Your task to perform on an android device: uninstall "Skype" Image 0: 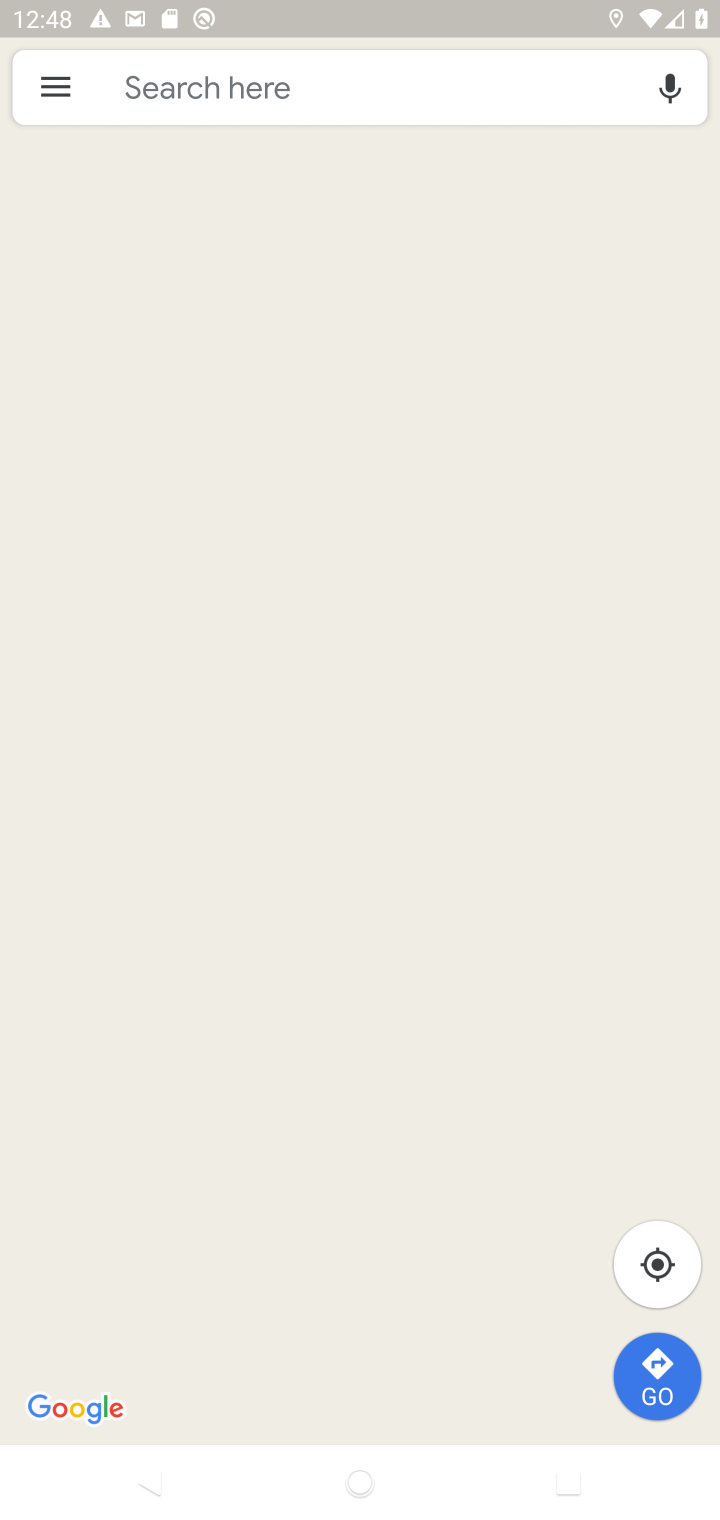
Step 0: press home button
Your task to perform on an android device: uninstall "Skype" Image 1: 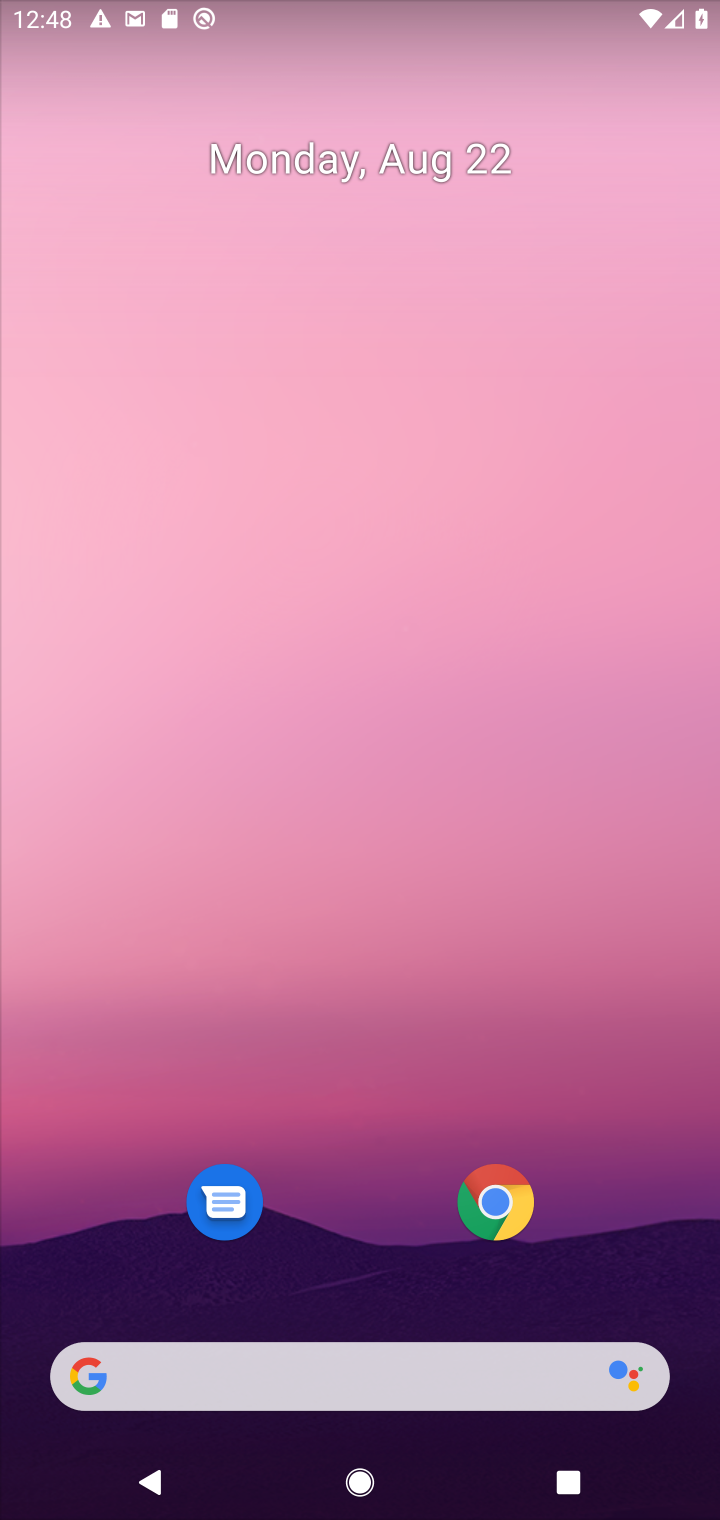
Step 1: drag from (335, 1230) to (246, 276)
Your task to perform on an android device: uninstall "Skype" Image 2: 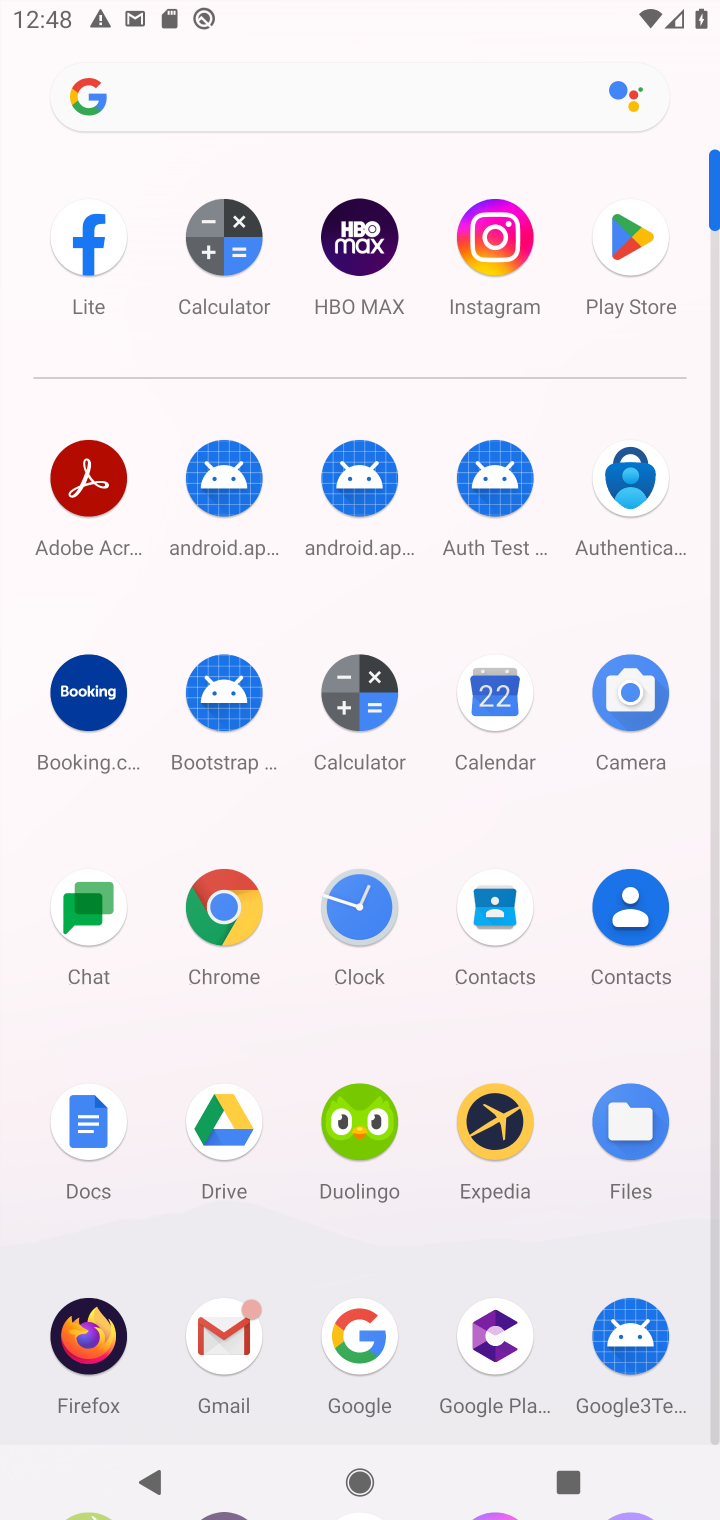
Step 2: click (631, 243)
Your task to perform on an android device: uninstall "Skype" Image 3: 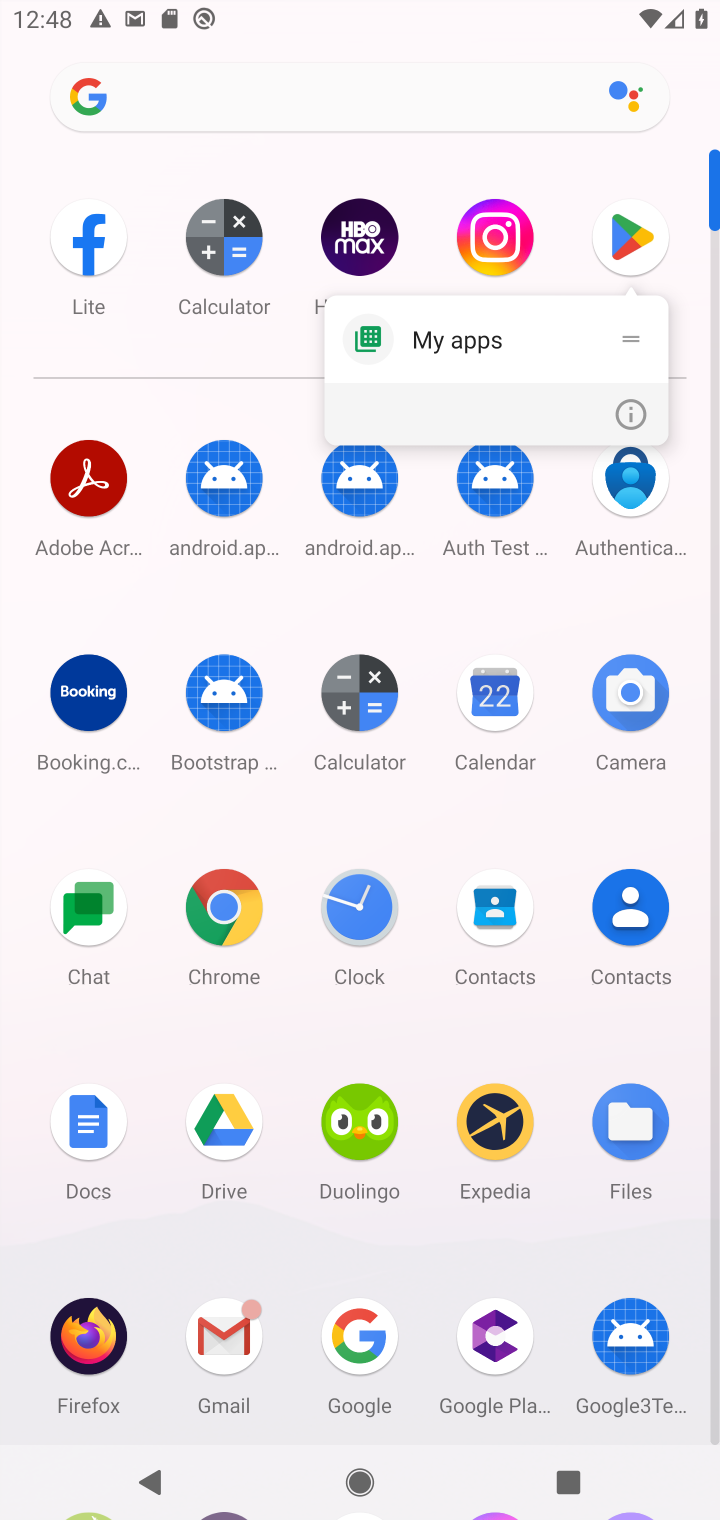
Step 3: click (629, 241)
Your task to perform on an android device: uninstall "Skype" Image 4: 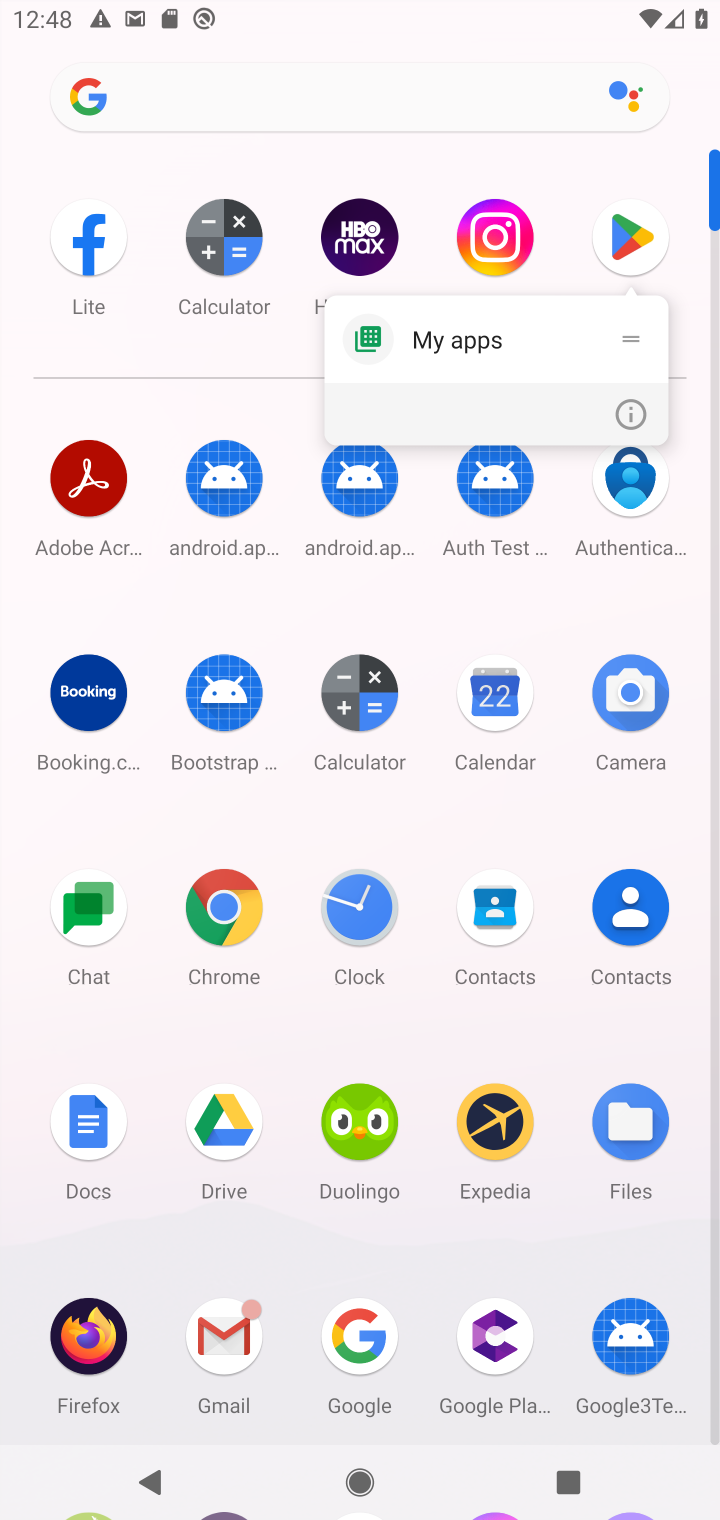
Step 4: click (629, 241)
Your task to perform on an android device: uninstall "Skype" Image 5: 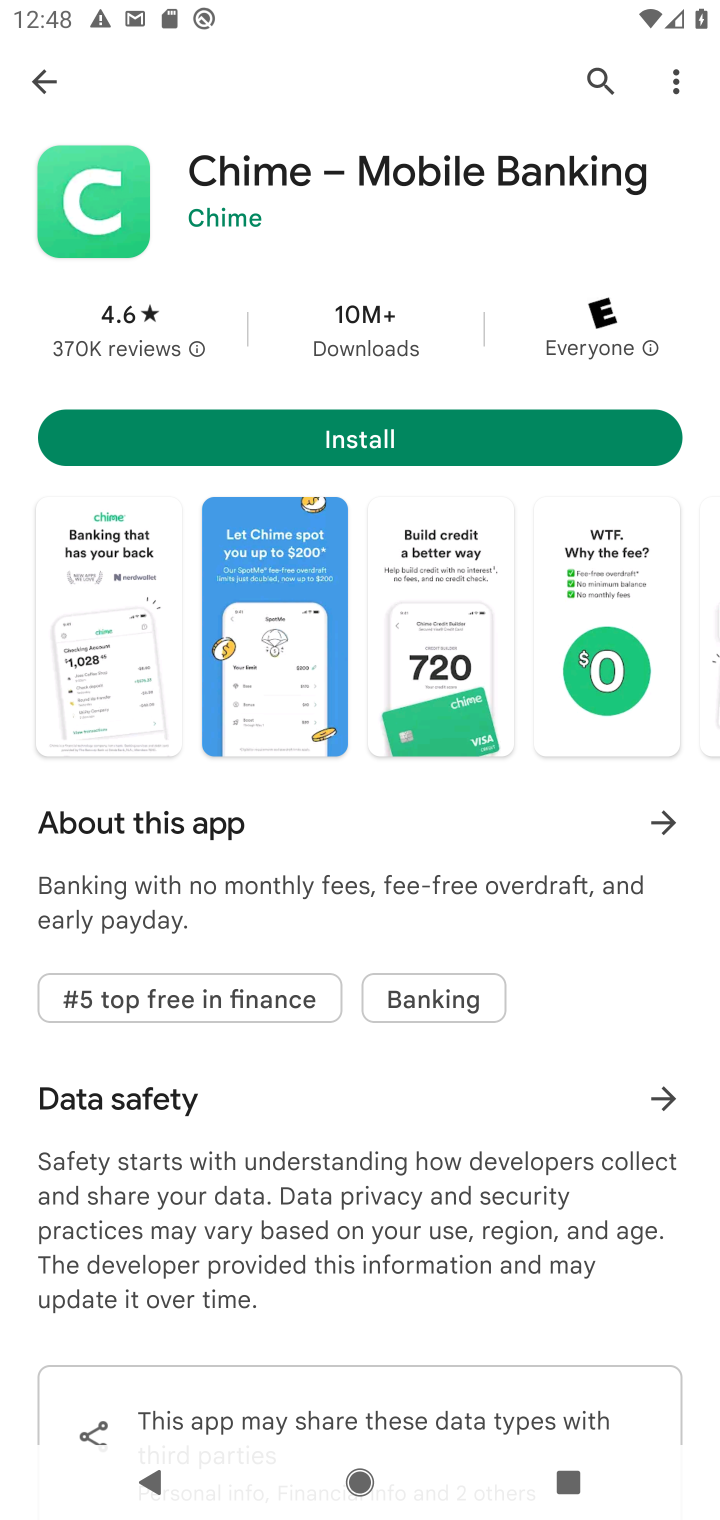
Step 5: click (599, 77)
Your task to perform on an android device: uninstall "Skype" Image 6: 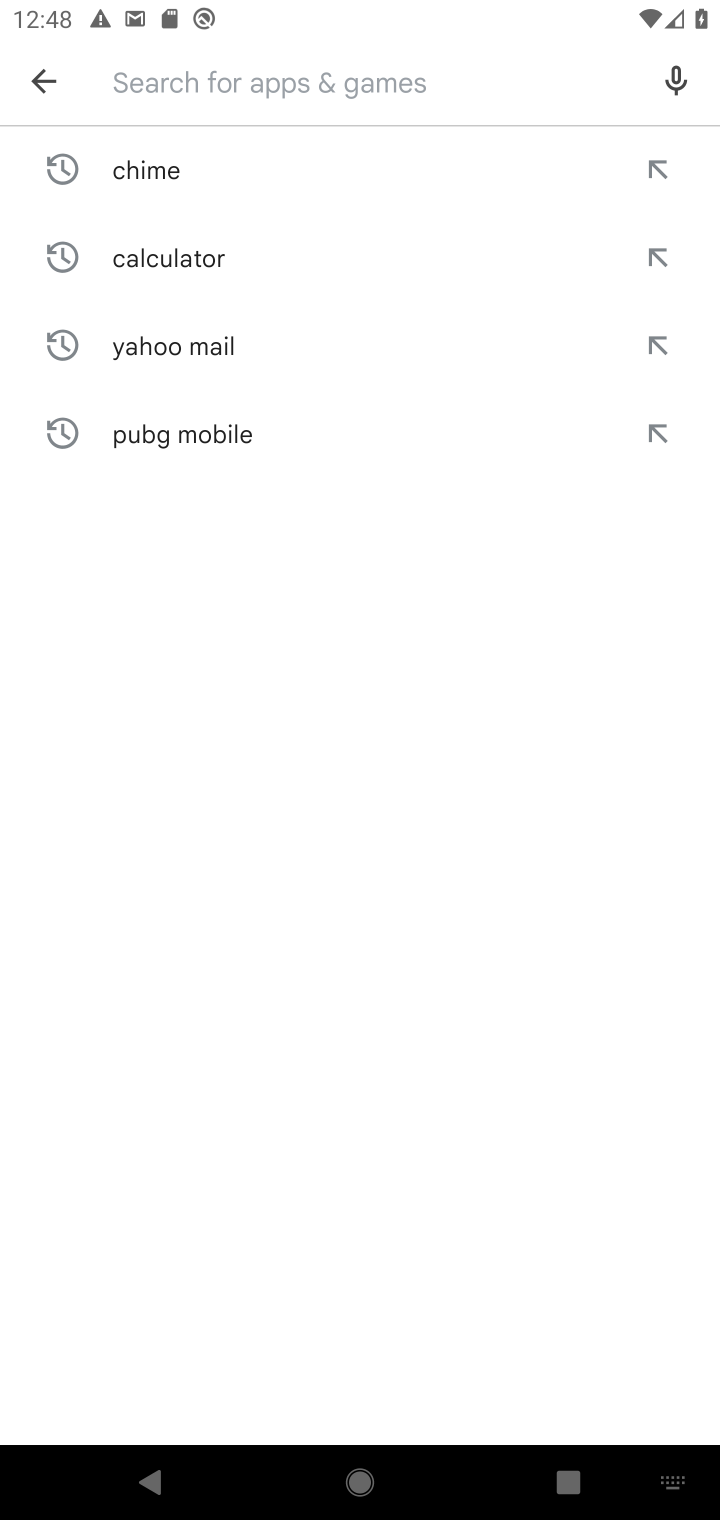
Step 6: type "Skype"
Your task to perform on an android device: uninstall "Skype" Image 7: 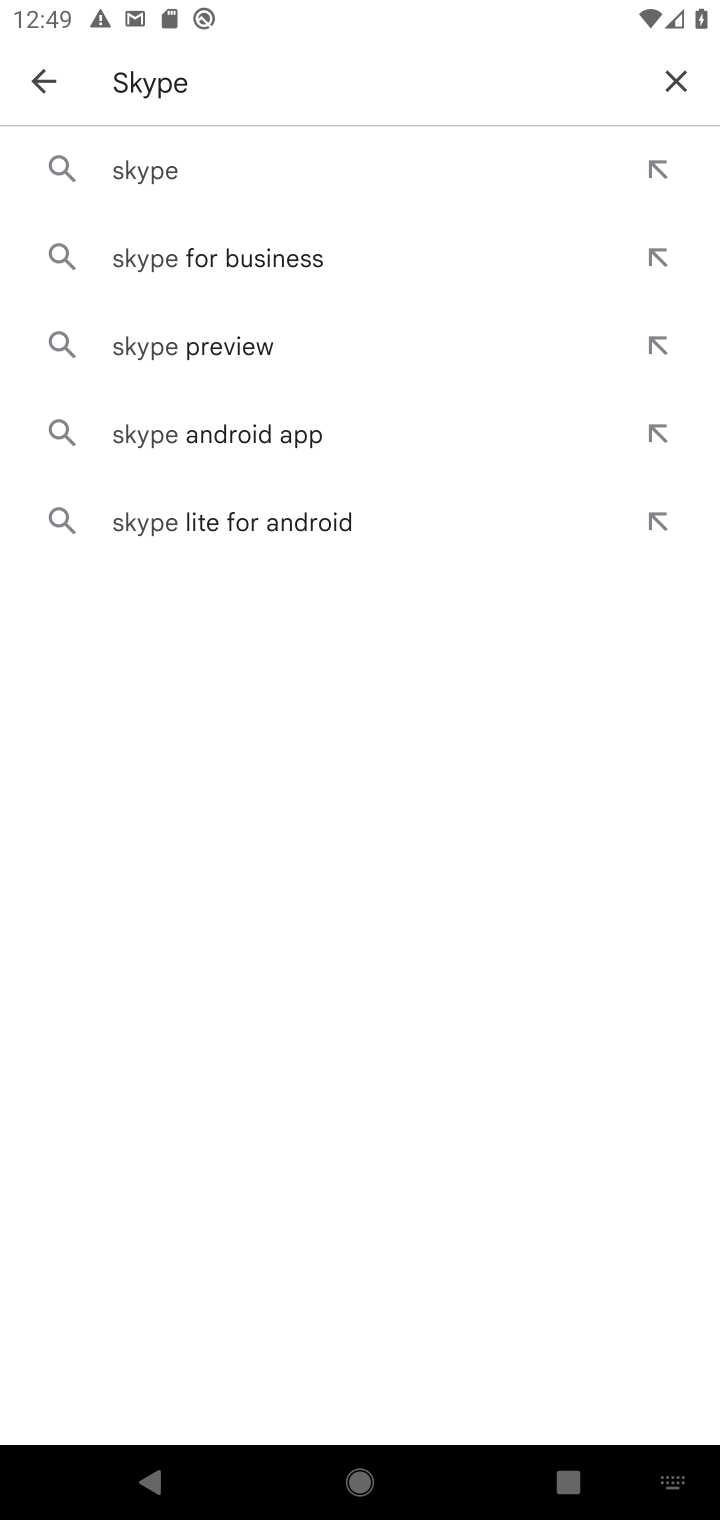
Step 7: click (132, 172)
Your task to perform on an android device: uninstall "Skype" Image 8: 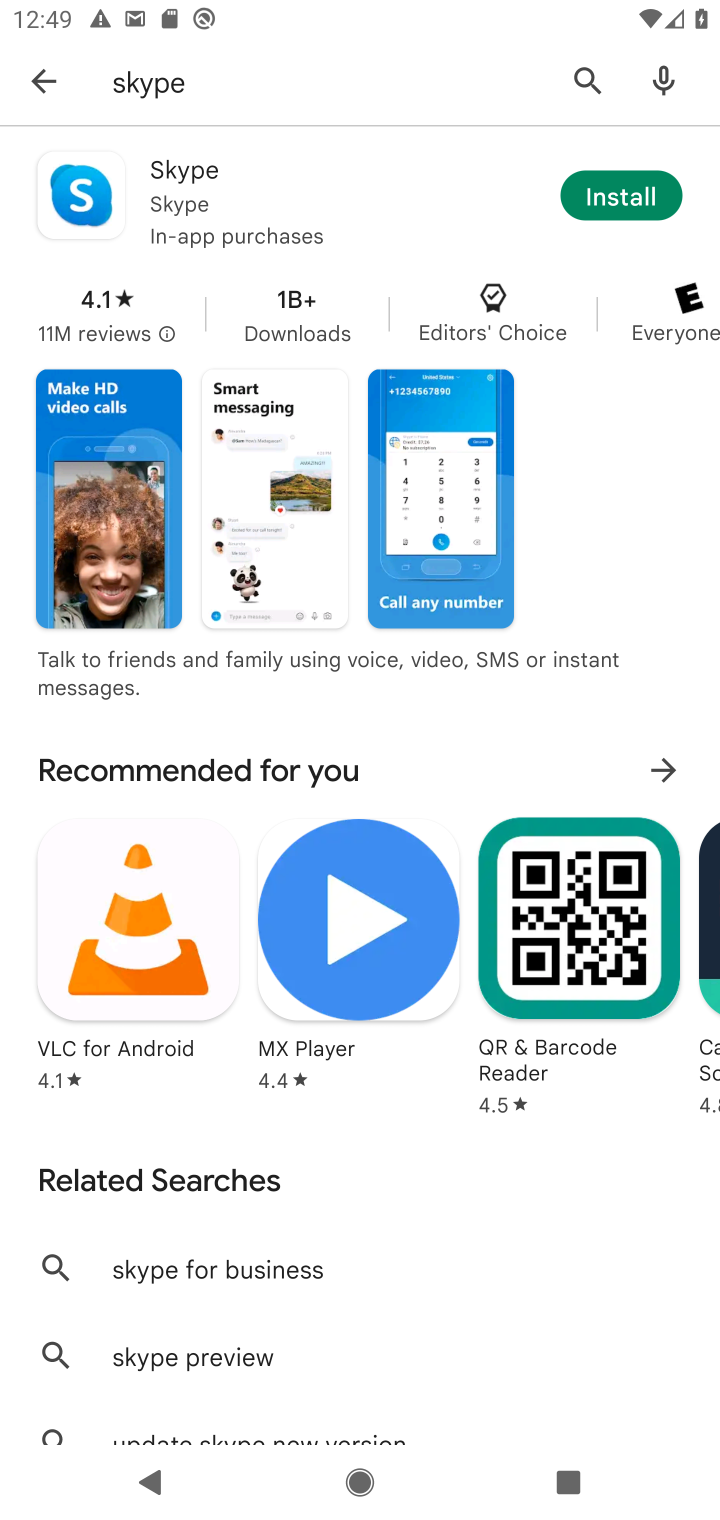
Step 8: click (197, 195)
Your task to perform on an android device: uninstall "Skype" Image 9: 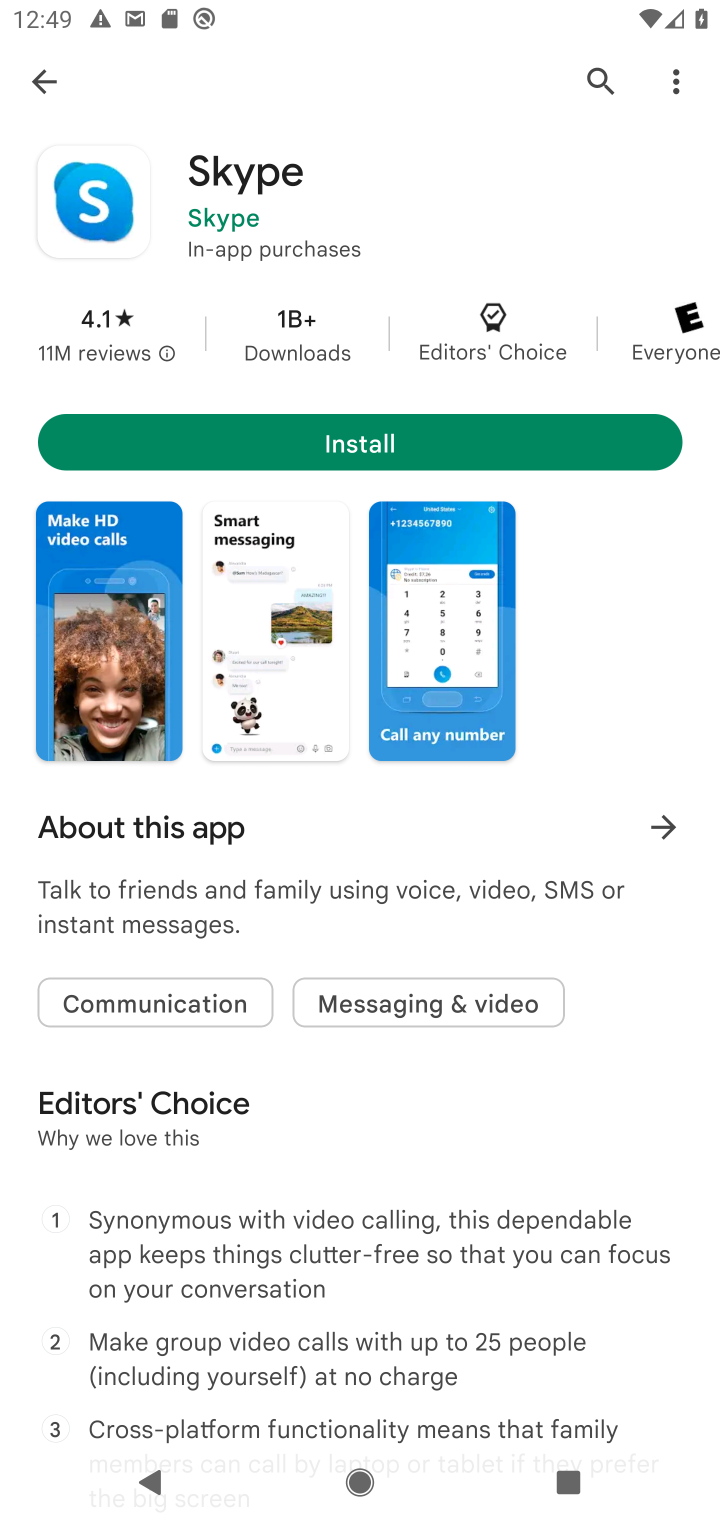
Step 9: task complete